Your task to perform on an android device: Go to ESPN.com Image 0: 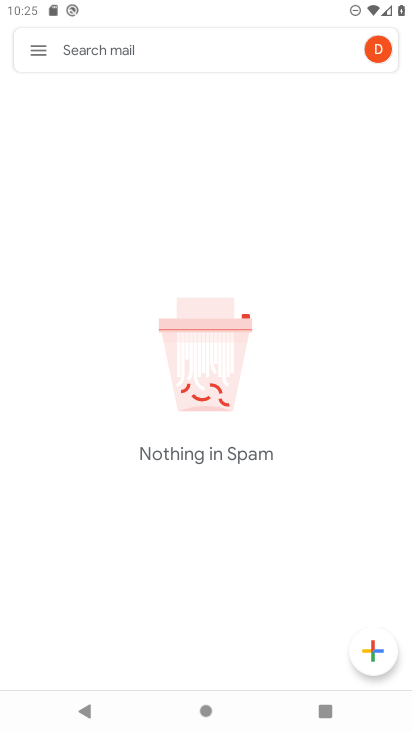
Step 0: press home button
Your task to perform on an android device: Go to ESPN.com Image 1: 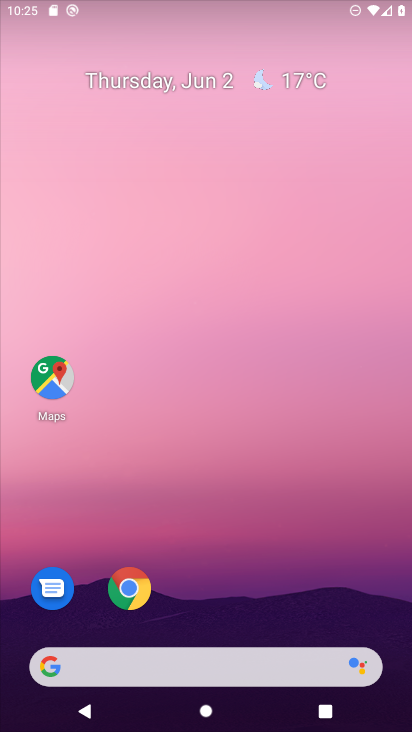
Step 1: drag from (207, 482) to (251, 178)
Your task to perform on an android device: Go to ESPN.com Image 2: 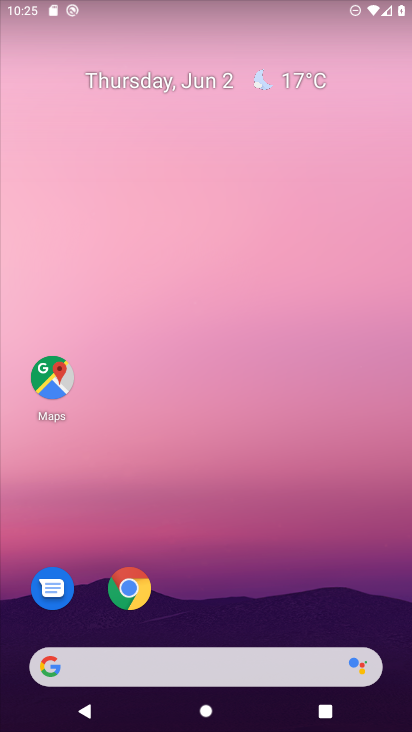
Step 2: click (150, 599)
Your task to perform on an android device: Go to ESPN.com Image 3: 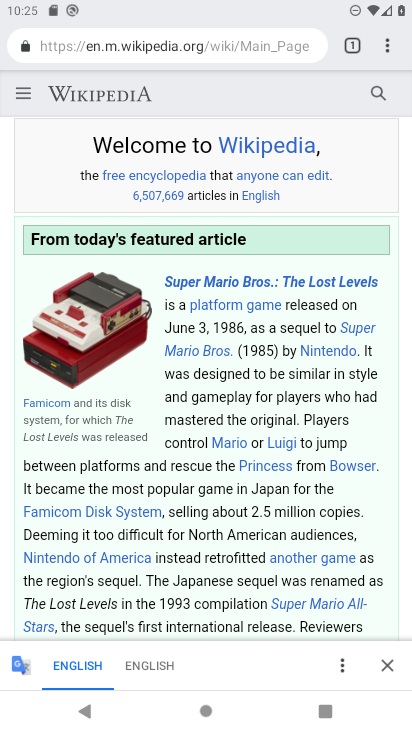
Step 3: click (245, 53)
Your task to perform on an android device: Go to ESPN.com Image 4: 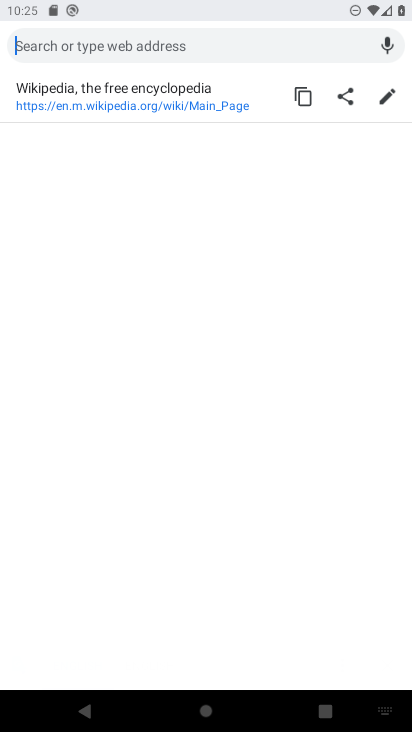
Step 4: type "espn"
Your task to perform on an android device: Go to ESPN.com Image 5: 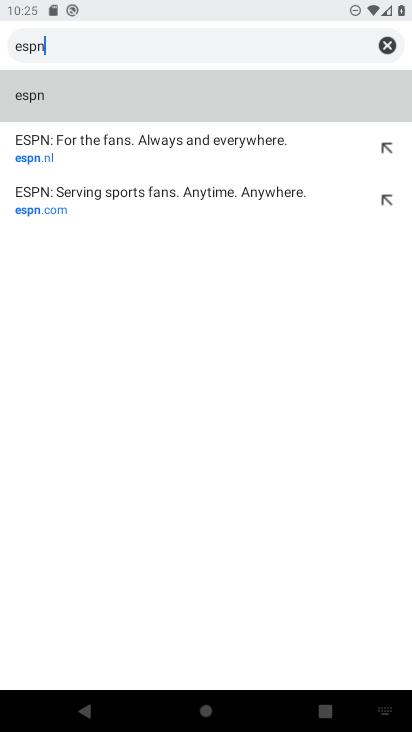
Step 5: click (148, 201)
Your task to perform on an android device: Go to ESPN.com Image 6: 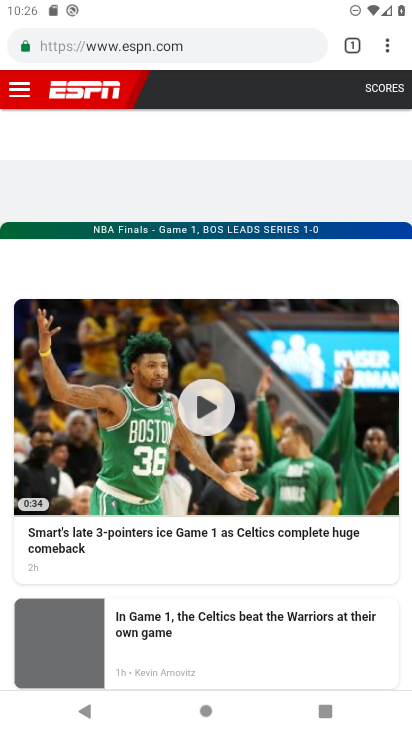
Step 6: task complete